Your task to perform on an android device: Open my contact list Image 0: 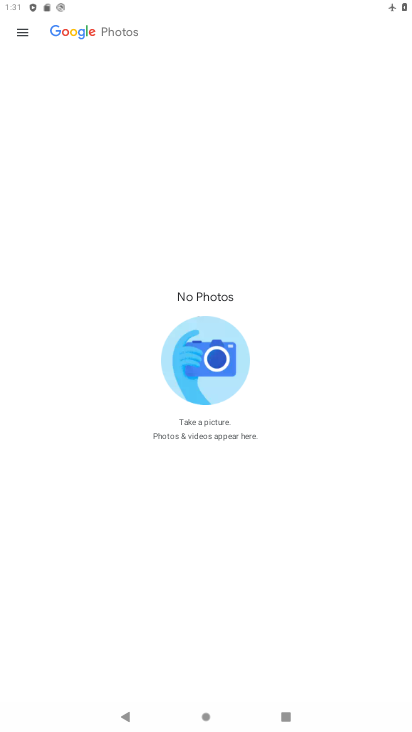
Step 0: press home button
Your task to perform on an android device: Open my contact list Image 1: 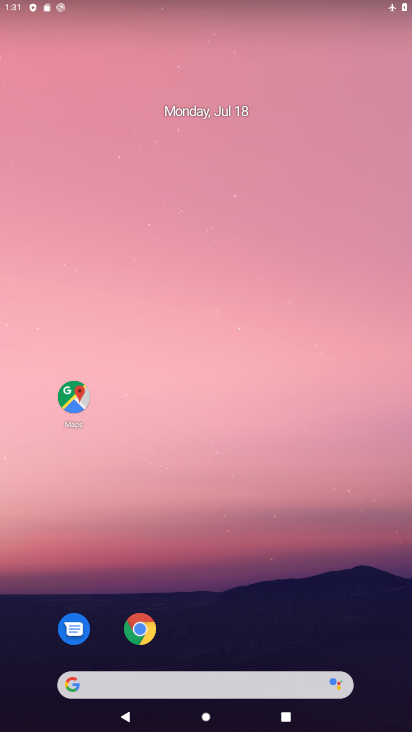
Step 1: drag from (235, 603) to (283, 144)
Your task to perform on an android device: Open my contact list Image 2: 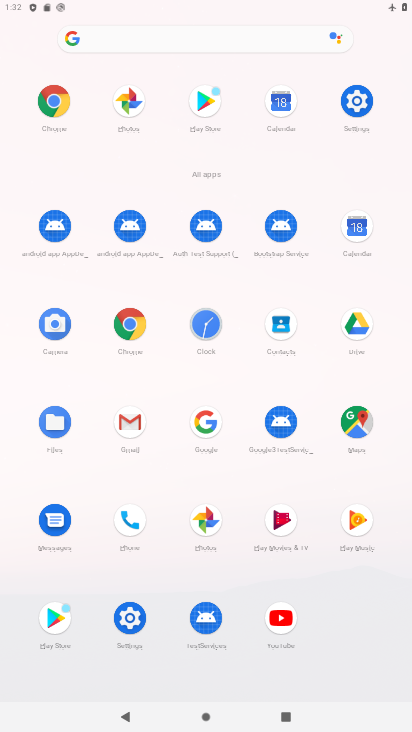
Step 2: click (286, 325)
Your task to perform on an android device: Open my contact list Image 3: 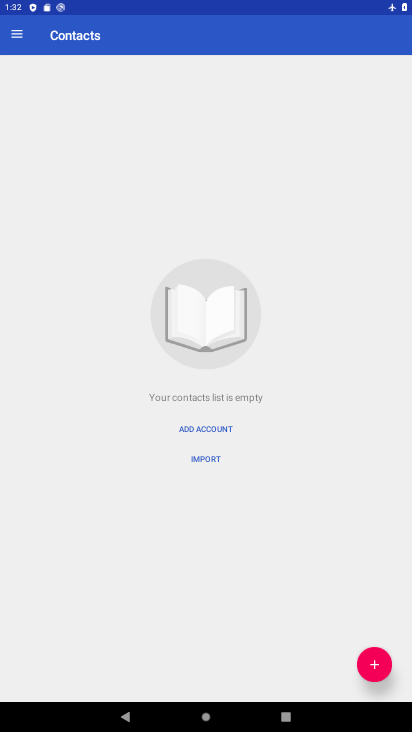
Step 3: click (19, 31)
Your task to perform on an android device: Open my contact list Image 4: 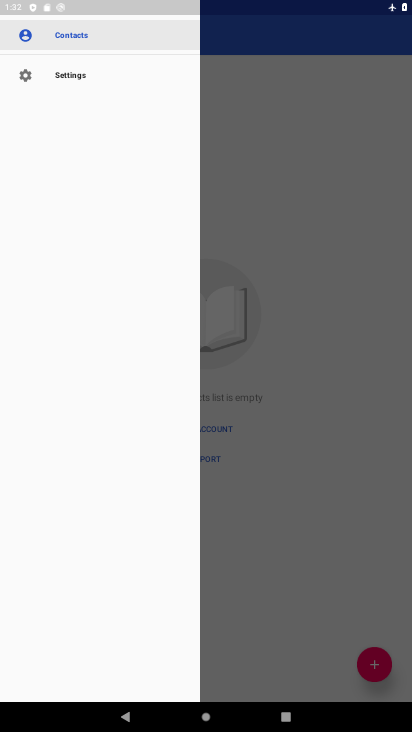
Step 4: click (296, 156)
Your task to perform on an android device: Open my contact list Image 5: 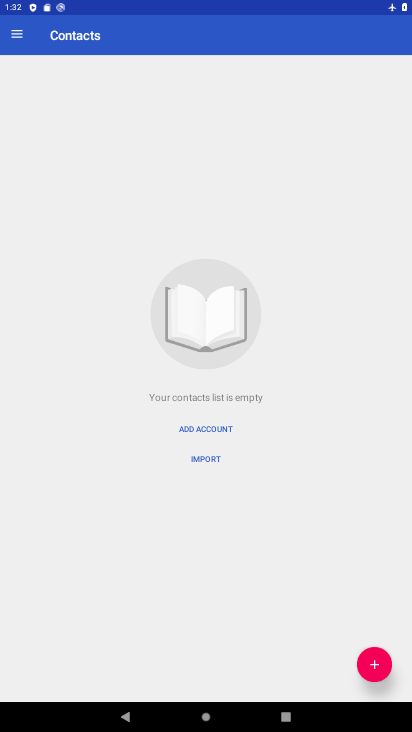
Step 5: task complete